Your task to perform on an android device: Open Google Image 0: 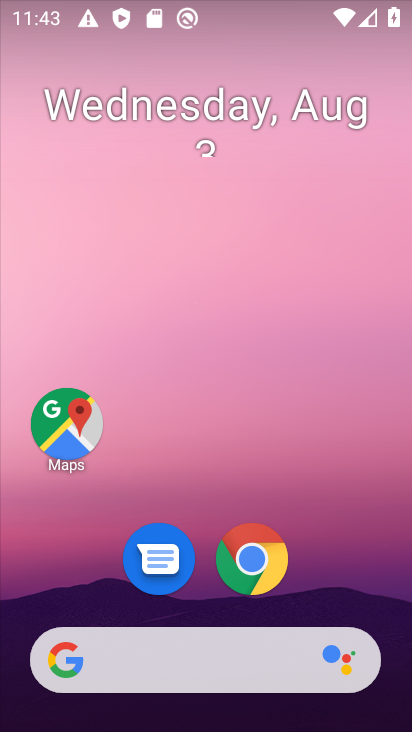
Step 0: drag from (177, 661) to (140, 17)
Your task to perform on an android device: Open Google Image 1: 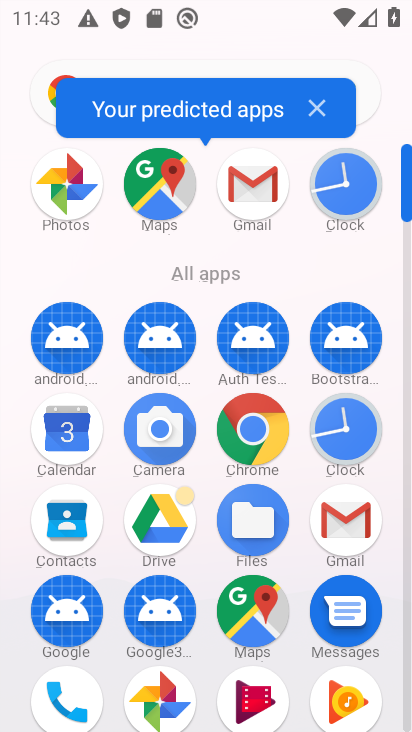
Step 1: drag from (206, 569) to (204, 356)
Your task to perform on an android device: Open Google Image 2: 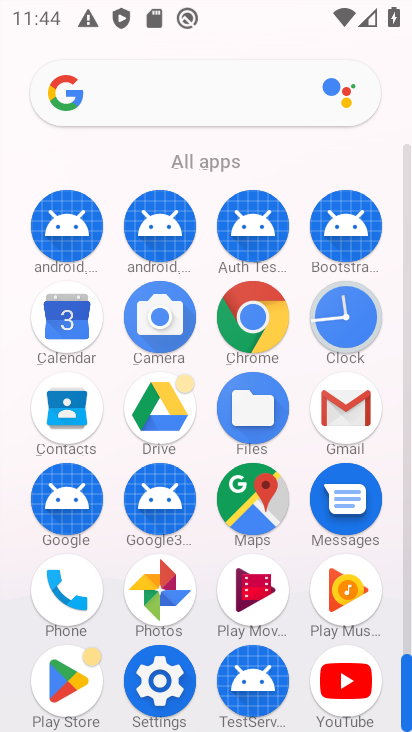
Step 2: drag from (209, 652) to (266, 409)
Your task to perform on an android device: Open Google Image 3: 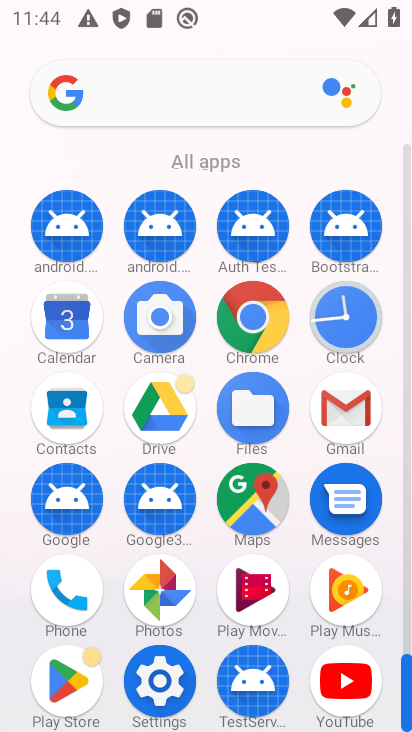
Step 3: drag from (254, 331) to (282, 619)
Your task to perform on an android device: Open Google Image 4: 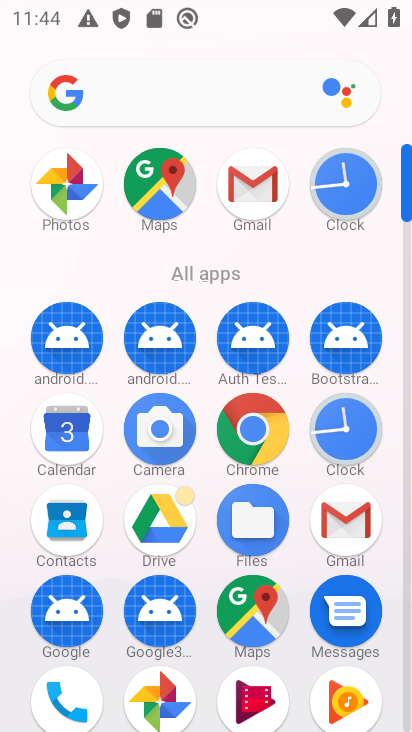
Step 4: drag from (312, 637) to (340, 360)
Your task to perform on an android device: Open Google Image 5: 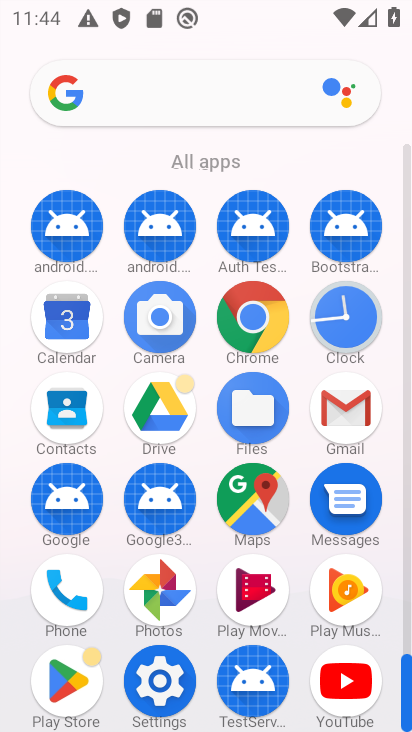
Step 5: click (237, 96)
Your task to perform on an android device: Open Google Image 6: 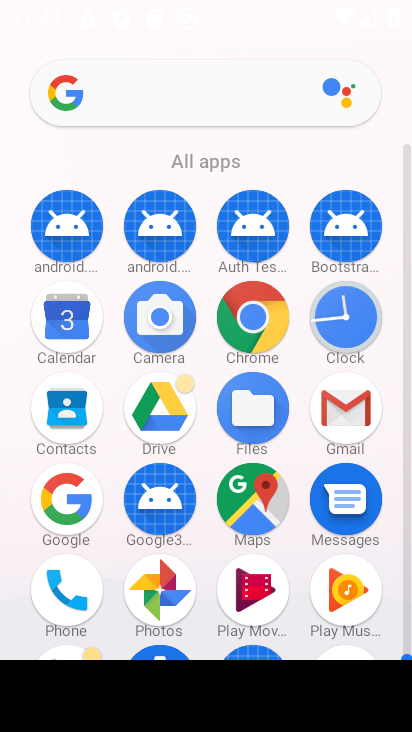
Step 6: click (77, 97)
Your task to perform on an android device: Open Google Image 7: 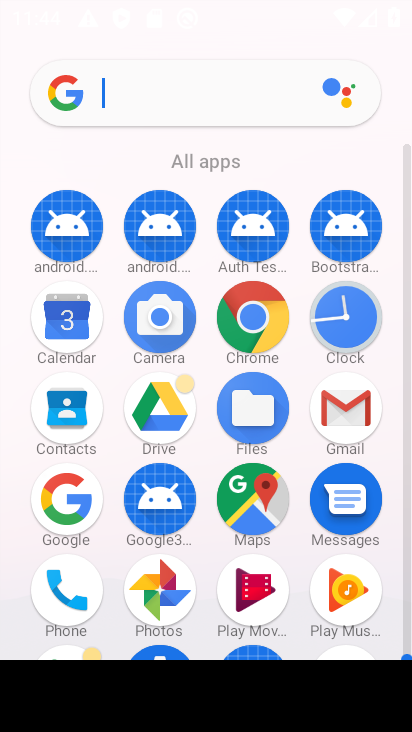
Step 7: click (77, 97)
Your task to perform on an android device: Open Google Image 8: 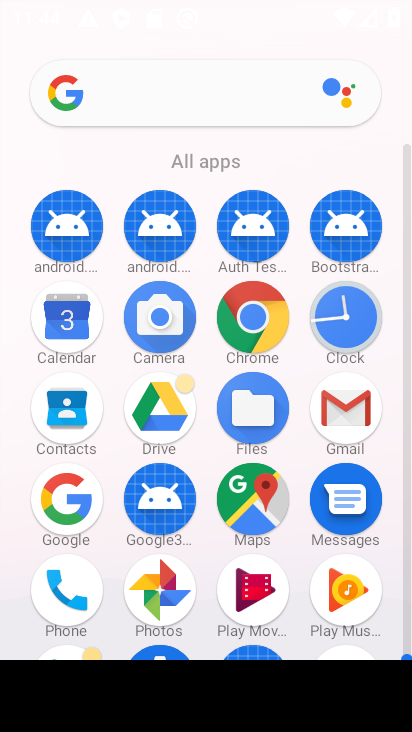
Step 8: click (228, 89)
Your task to perform on an android device: Open Google Image 9: 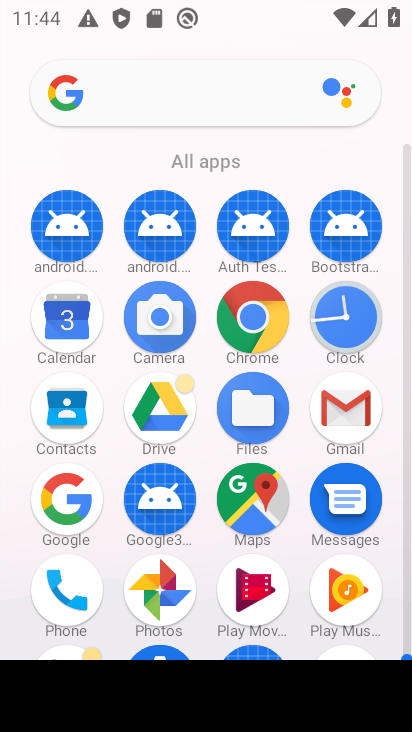
Step 9: click (228, 89)
Your task to perform on an android device: Open Google Image 10: 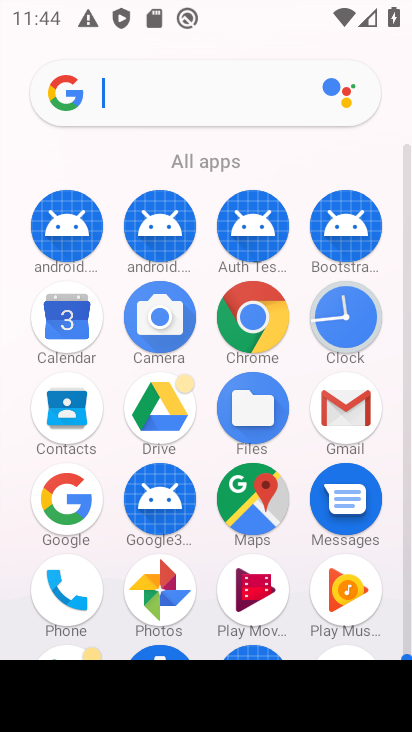
Step 10: click (72, 504)
Your task to perform on an android device: Open Google Image 11: 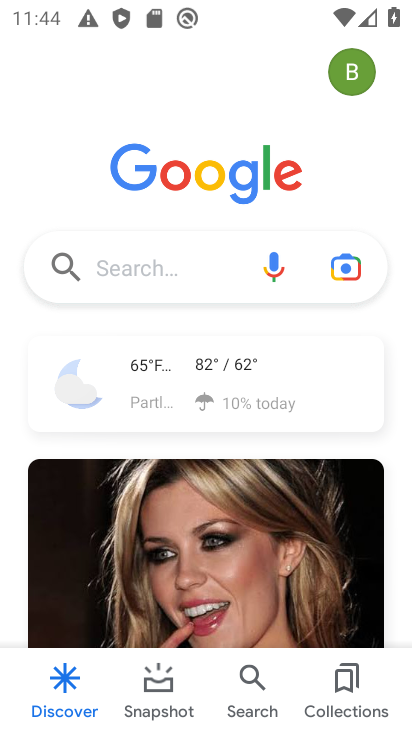
Step 11: task complete